Your task to perform on an android device: Open settings Image 0: 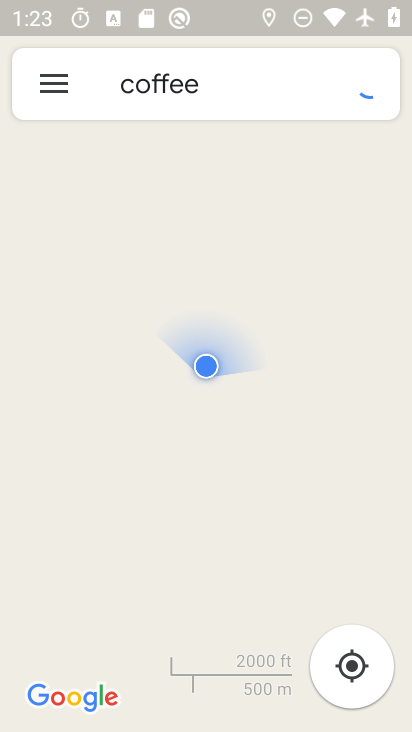
Step 0: press home button
Your task to perform on an android device: Open settings Image 1: 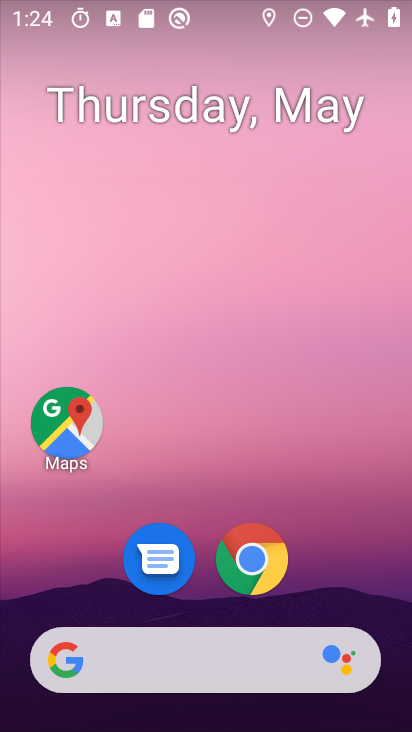
Step 1: drag from (105, 656) to (160, 203)
Your task to perform on an android device: Open settings Image 2: 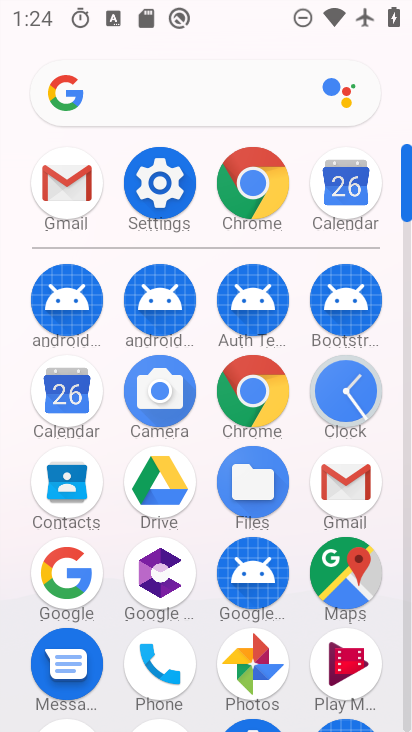
Step 2: click (156, 200)
Your task to perform on an android device: Open settings Image 3: 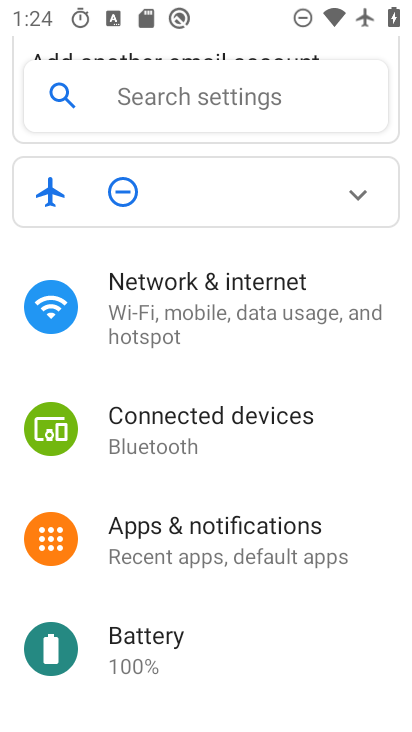
Step 3: click (156, 200)
Your task to perform on an android device: Open settings Image 4: 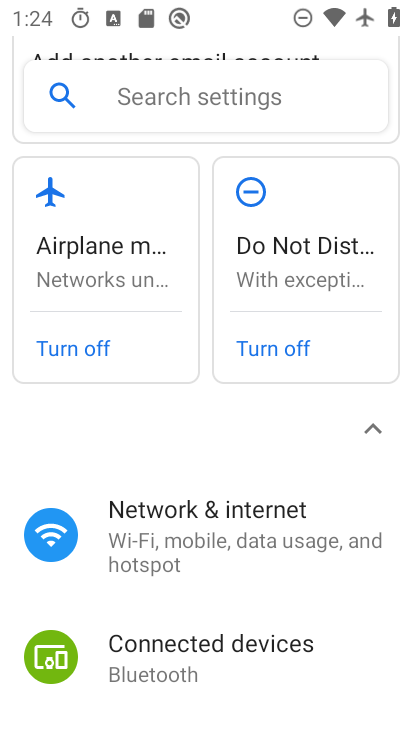
Step 4: task complete